Your task to perform on an android device: See recent photos Image 0: 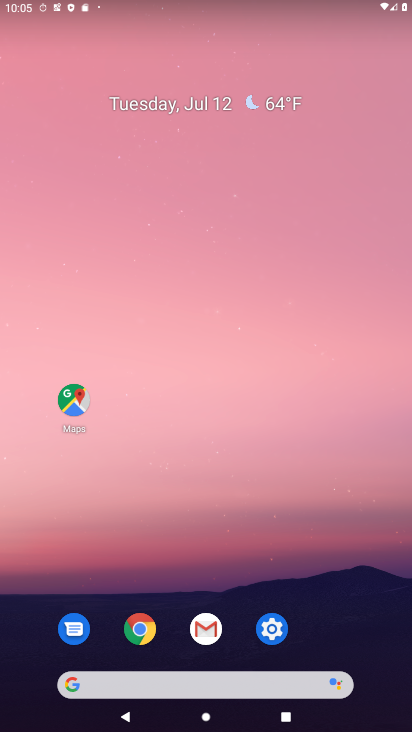
Step 0: drag from (235, 692) to (189, 142)
Your task to perform on an android device: See recent photos Image 1: 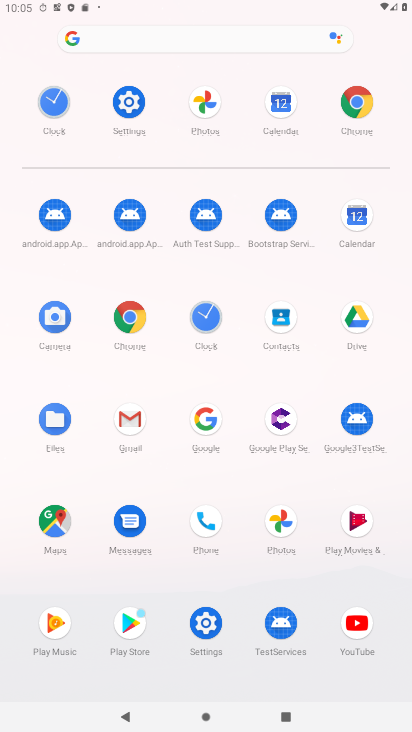
Step 1: click (272, 520)
Your task to perform on an android device: See recent photos Image 2: 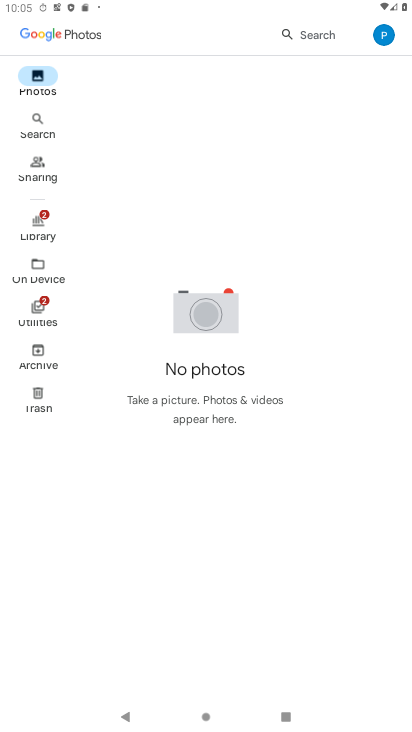
Step 2: click (31, 81)
Your task to perform on an android device: See recent photos Image 3: 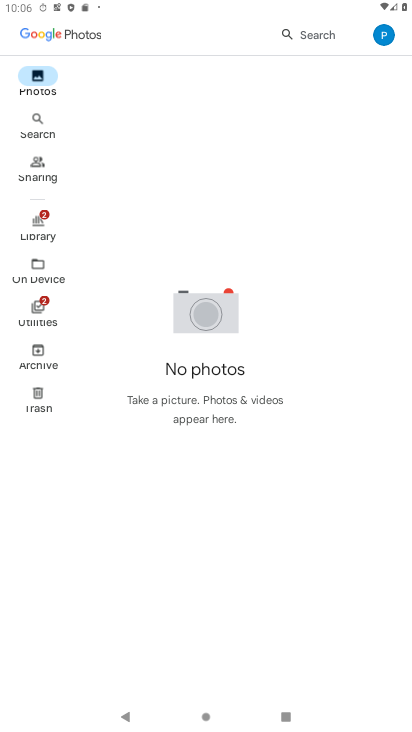
Step 3: task complete